Your task to perform on an android device: toggle show notifications on the lock screen Image 0: 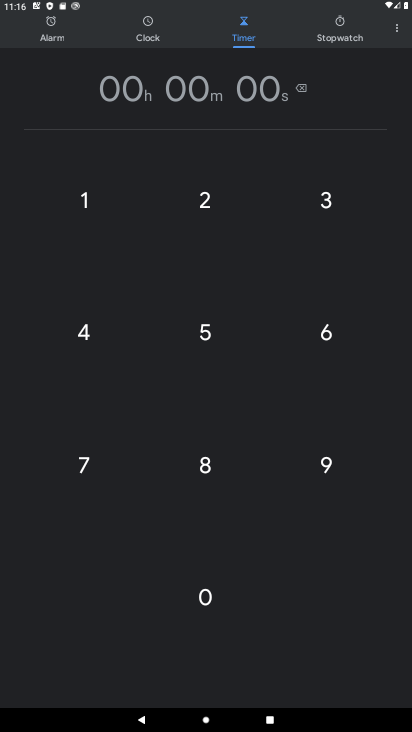
Step 0: press home button
Your task to perform on an android device: toggle show notifications on the lock screen Image 1: 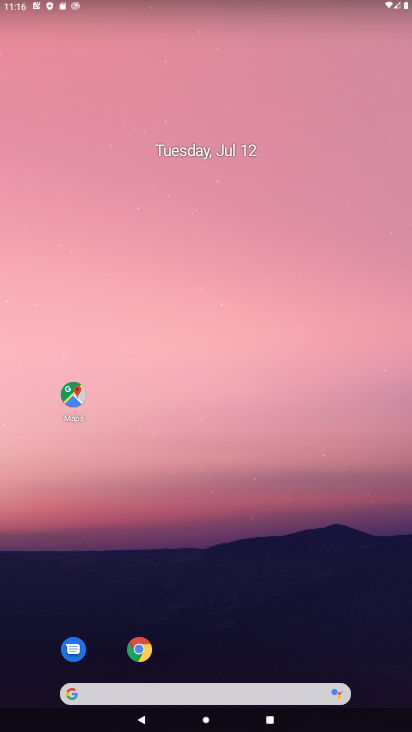
Step 1: drag from (348, 660) to (251, 61)
Your task to perform on an android device: toggle show notifications on the lock screen Image 2: 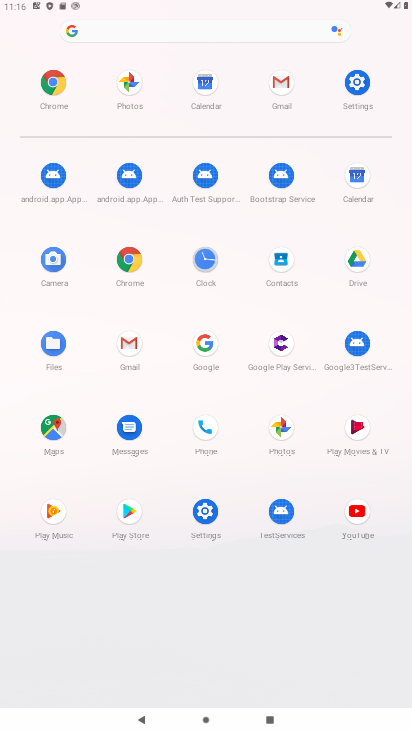
Step 2: click (203, 512)
Your task to perform on an android device: toggle show notifications on the lock screen Image 3: 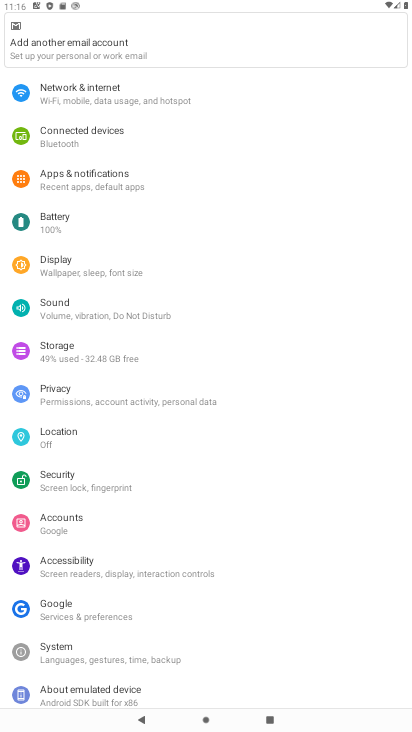
Step 3: click (75, 178)
Your task to perform on an android device: toggle show notifications on the lock screen Image 4: 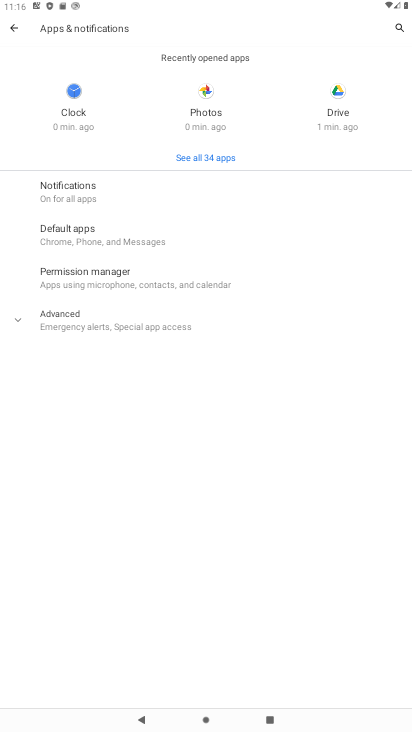
Step 4: click (75, 178)
Your task to perform on an android device: toggle show notifications on the lock screen Image 5: 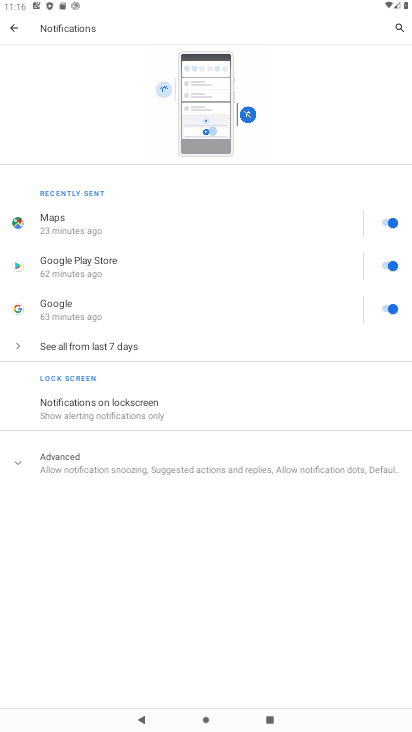
Step 5: click (69, 409)
Your task to perform on an android device: toggle show notifications on the lock screen Image 6: 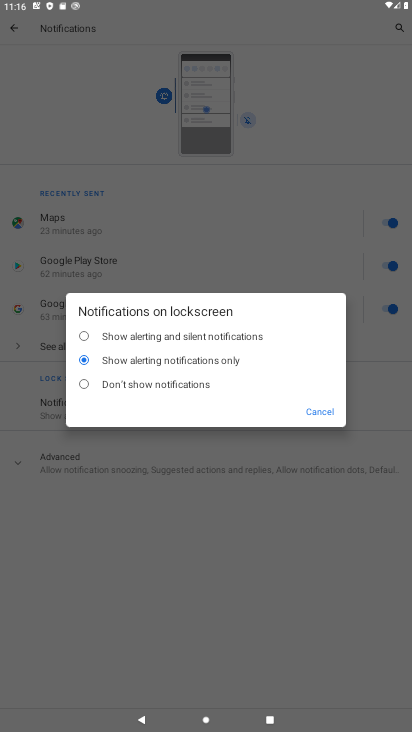
Step 6: click (83, 336)
Your task to perform on an android device: toggle show notifications on the lock screen Image 7: 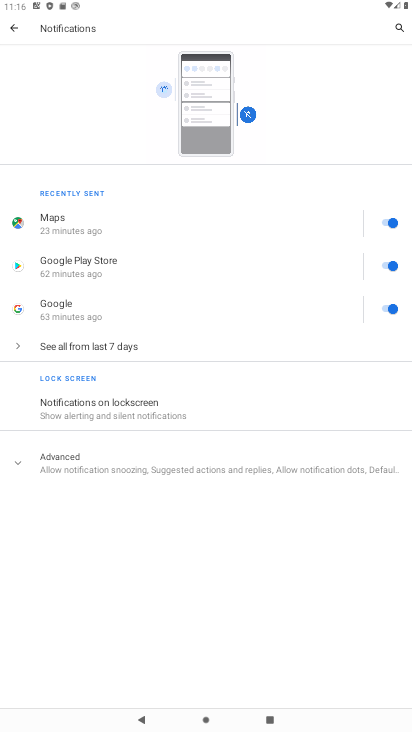
Step 7: task complete